Your task to perform on an android device: Open calendar and show me the second week of next month Image 0: 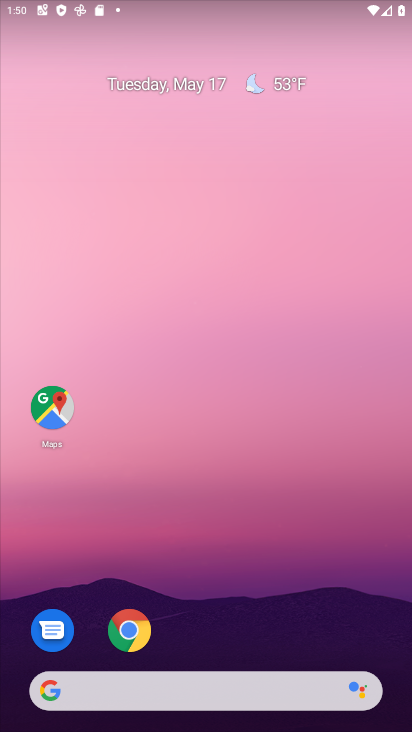
Step 0: drag from (218, 573) to (229, 216)
Your task to perform on an android device: Open calendar and show me the second week of next month Image 1: 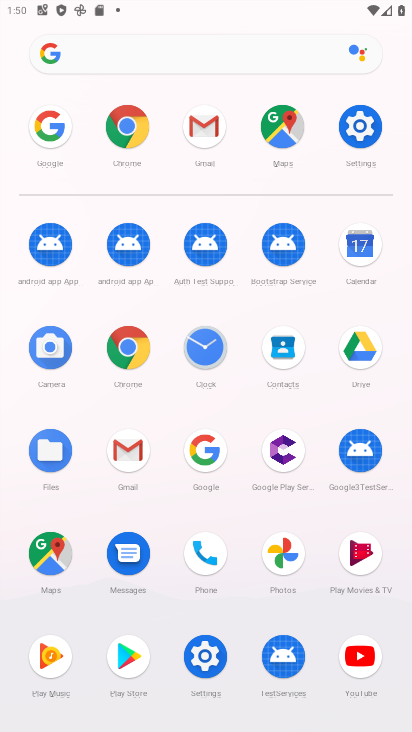
Step 1: click (364, 246)
Your task to perform on an android device: Open calendar and show me the second week of next month Image 2: 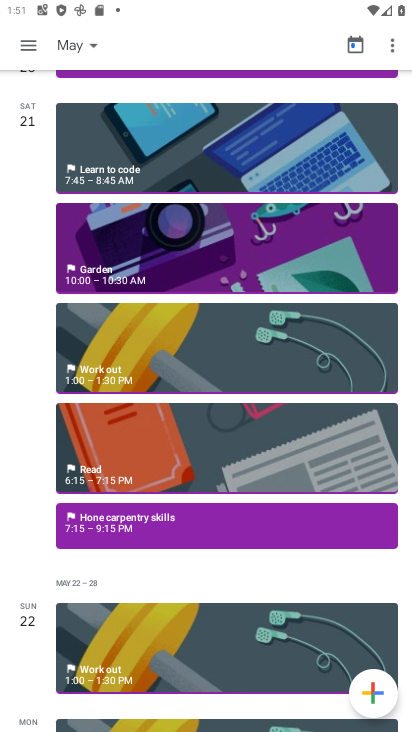
Step 2: click (89, 56)
Your task to perform on an android device: Open calendar and show me the second week of next month Image 3: 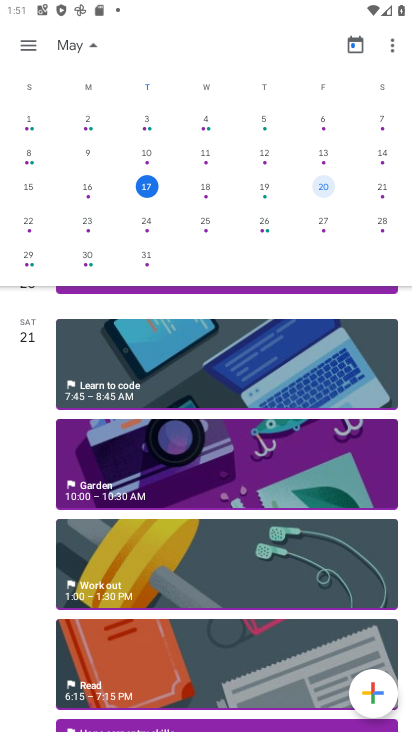
Step 3: drag from (376, 203) to (3, 167)
Your task to perform on an android device: Open calendar and show me the second week of next month Image 4: 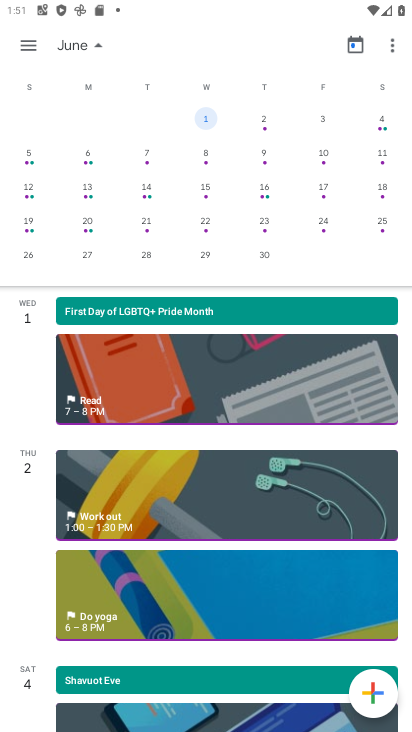
Step 4: click (26, 201)
Your task to perform on an android device: Open calendar and show me the second week of next month Image 5: 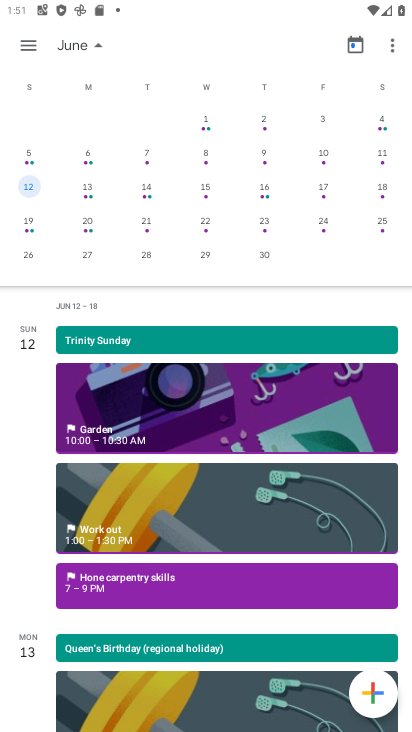
Step 5: task complete